Your task to perform on an android device: turn smart compose on in the gmail app Image 0: 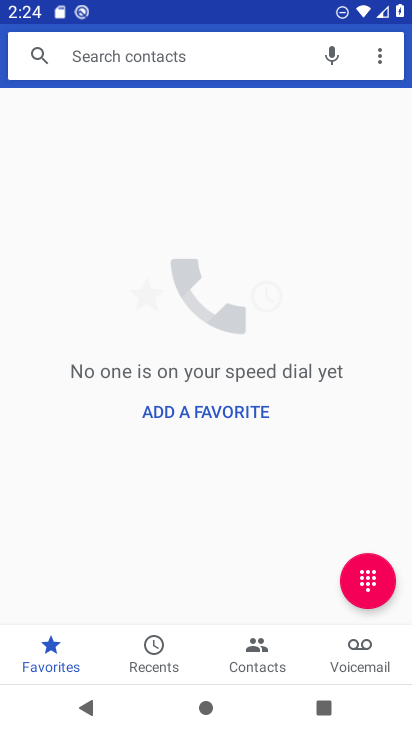
Step 0: press home button
Your task to perform on an android device: turn smart compose on in the gmail app Image 1: 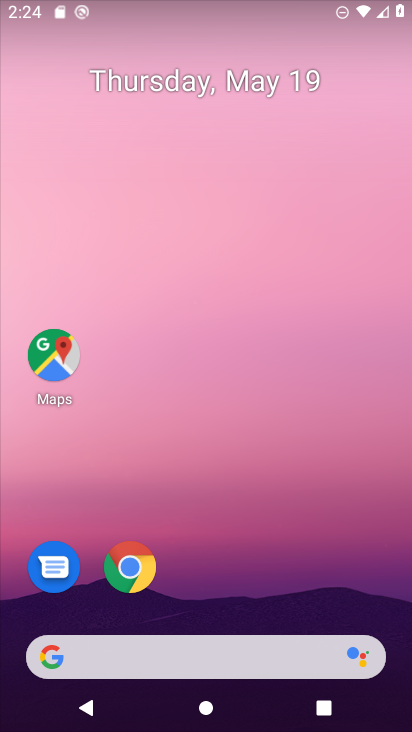
Step 1: drag from (251, 557) to (298, 45)
Your task to perform on an android device: turn smart compose on in the gmail app Image 2: 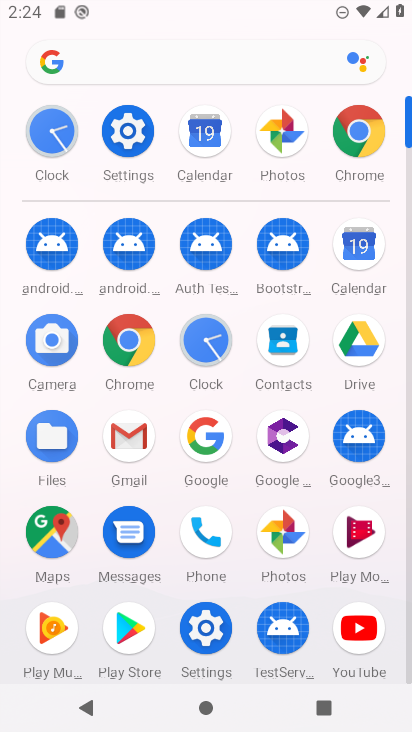
Step 2: click (136, 432)
Your task to perform on an android device: turn smart compose on in the gmail app Image 3: 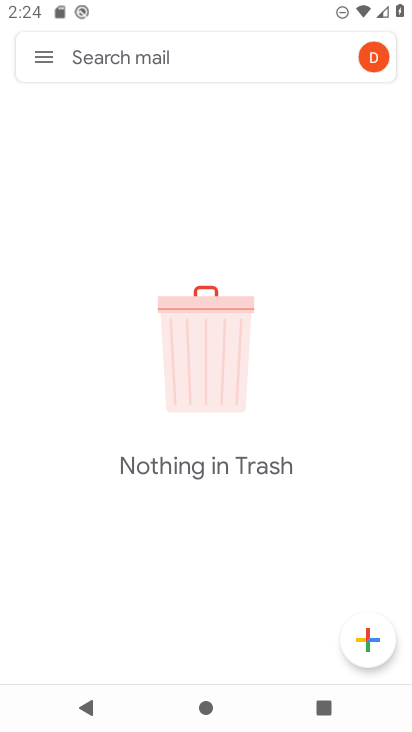
Step 3: click (38, 54)
Your task to perform on an android device: turn smart compose on in the gmail app Image 4: 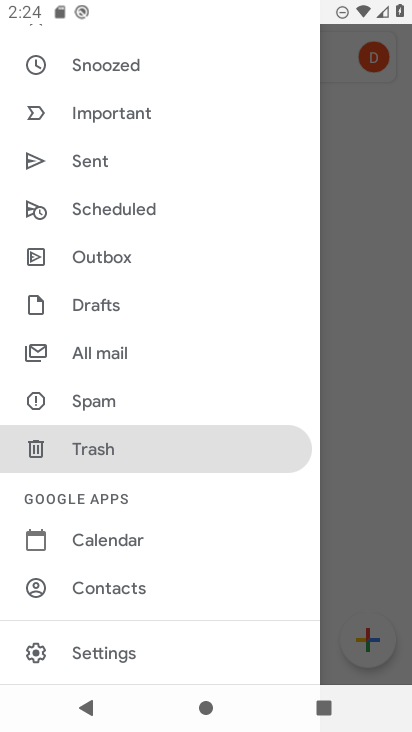
Step 4: click (118, 652)
Your task to perform on an android device: turn smart compose on in the gmail app Image 5: 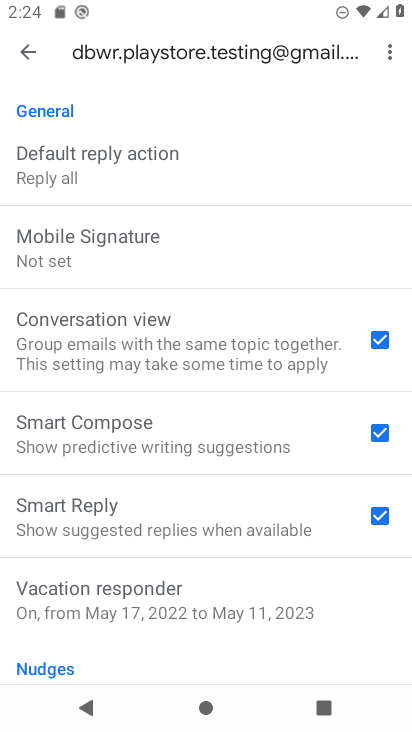
Step 5: task complete